Your task to perform on an android device: set default search engine in the chrome app Image 0: 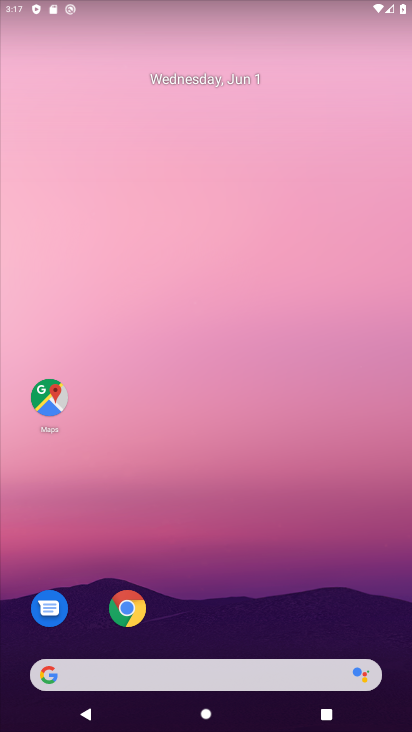
Step 0: click (150, 606)
Your task to perform on an android device: set default search engine in the chrome app Image 1: 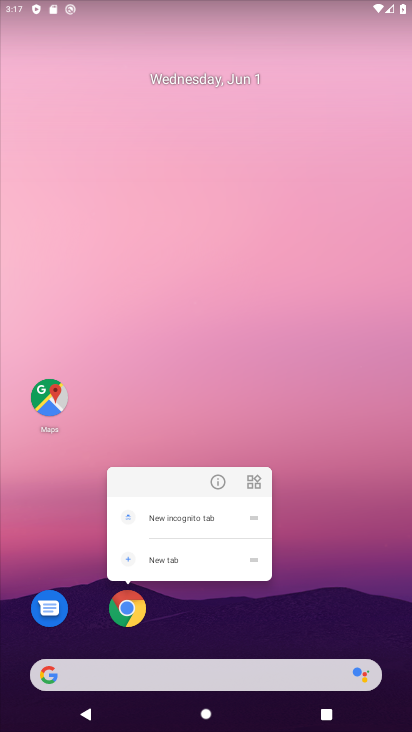
Step 1: click (150, 606)
Your task to perform on an android device: set default search engine in the chrome app Image 2: 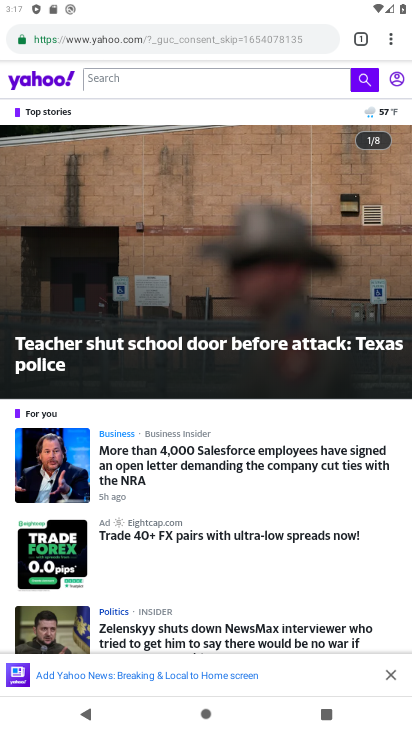
Step 2: drag from (398, 36) to (266, 463)
Your task to perform on an android device: set default search engine in the chrome app Image 3: 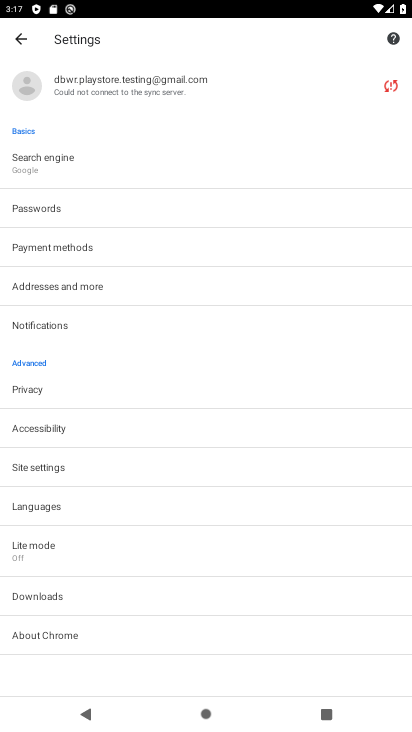
Step 3: click (57, 167)
Your task to perform on an android device: set default search engine in the chrome app Image 4: 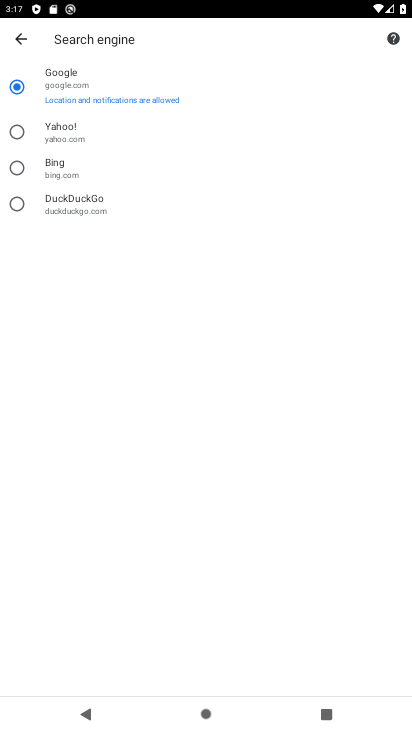
Step 4: click (92, 140)
Your task to perform on an android device: set default search engine in the chrome app Image 5: 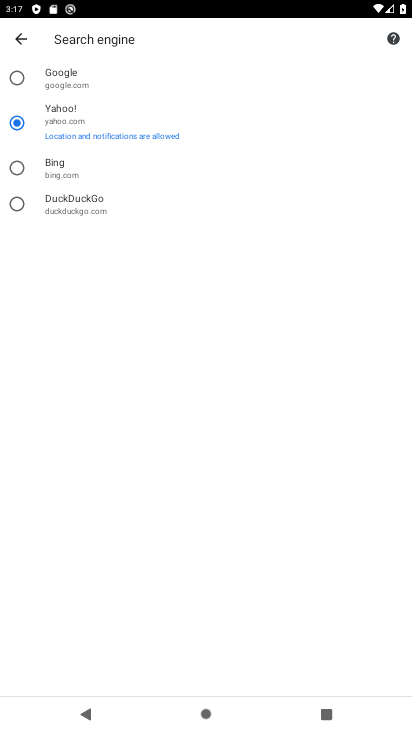
Step 5: task complete